Your task to perform on an android device: Go to privacy settings Image 0: 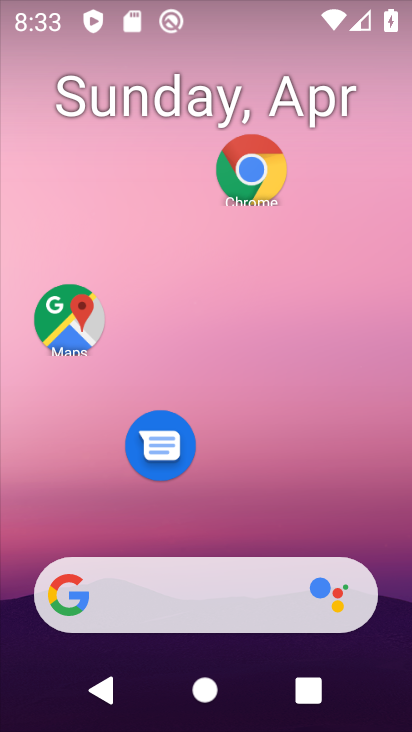
Step 0: click (249, 171)
Your task to perform on an android device: Go to privacy settings Image 1: 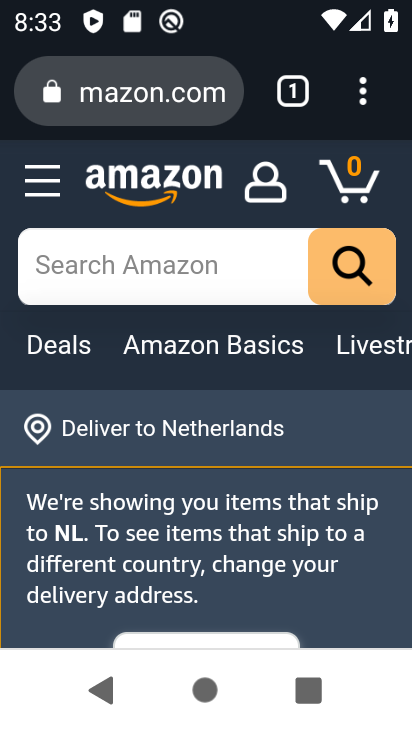
Step 1: click (358, 86)
Your task to perform on an android device: Go to privacy settings Image 2: 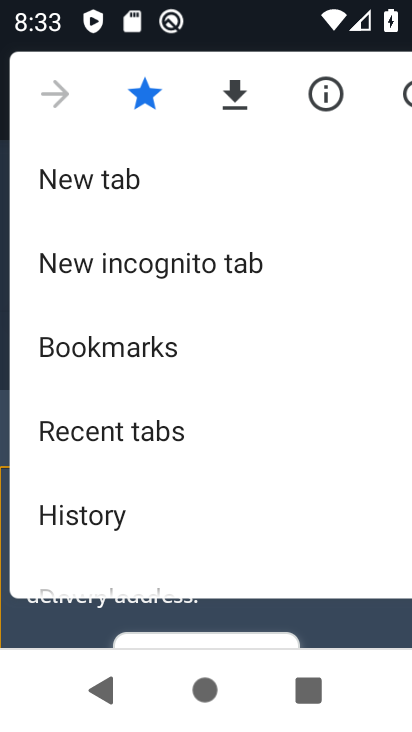
Step 2: drag from (238, 505) to (270, 141)
Your task to perform on an android device: Go to privacy settings Image 3: 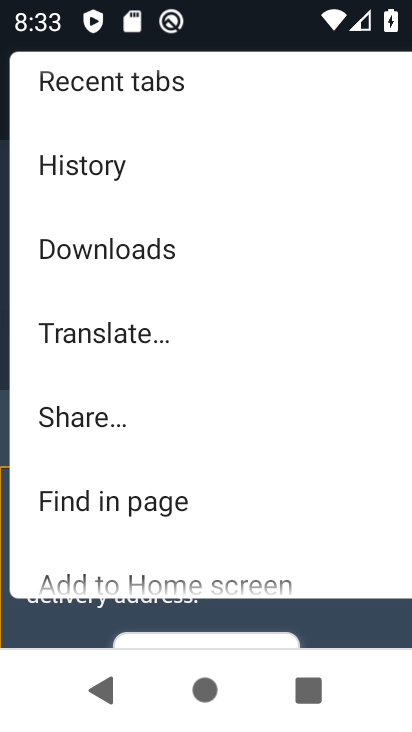
Step 3: drag from (247, 425) to (263, 88)
Your task to perform on an android device: Go to privacy settings Image 4: 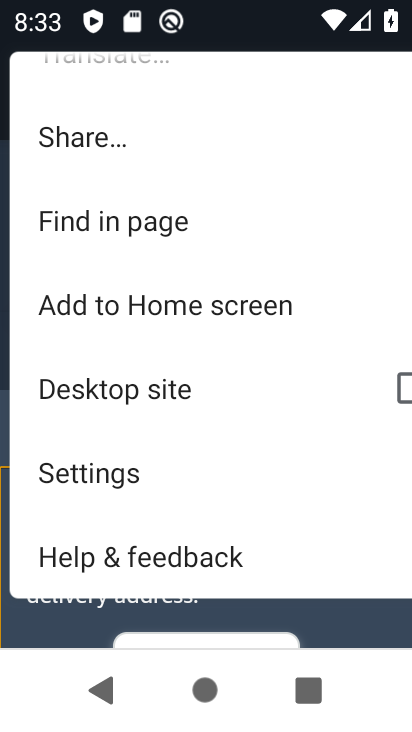
Step 4: click (66, 468)
Your task to perform on an android device: Go to privacy settings Image 5: 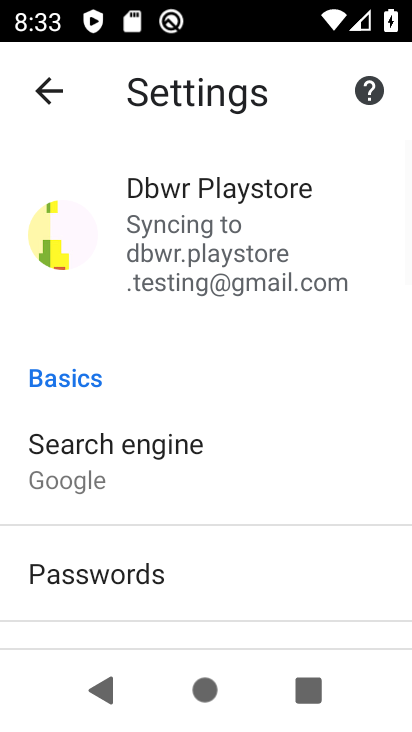
Step 5: drag from (237, 503) to (231, 60)
Your task to perform on an android device: Go to privacy settings Image 6: 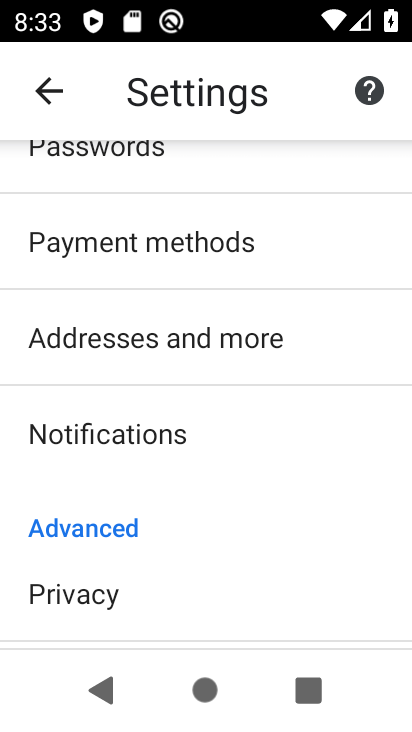
Step 6: click (106, 596)
Your task to perform on an android device: Go to privacy settings Image 7: 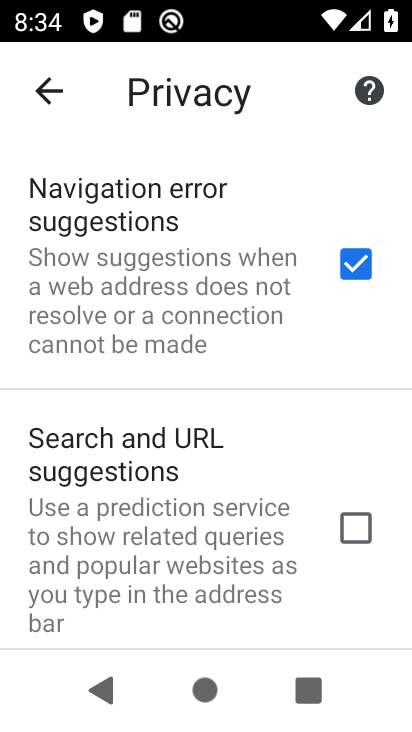
Step 7: task complete